Your task to perform on an android device: When is my next meeting? Image 0: 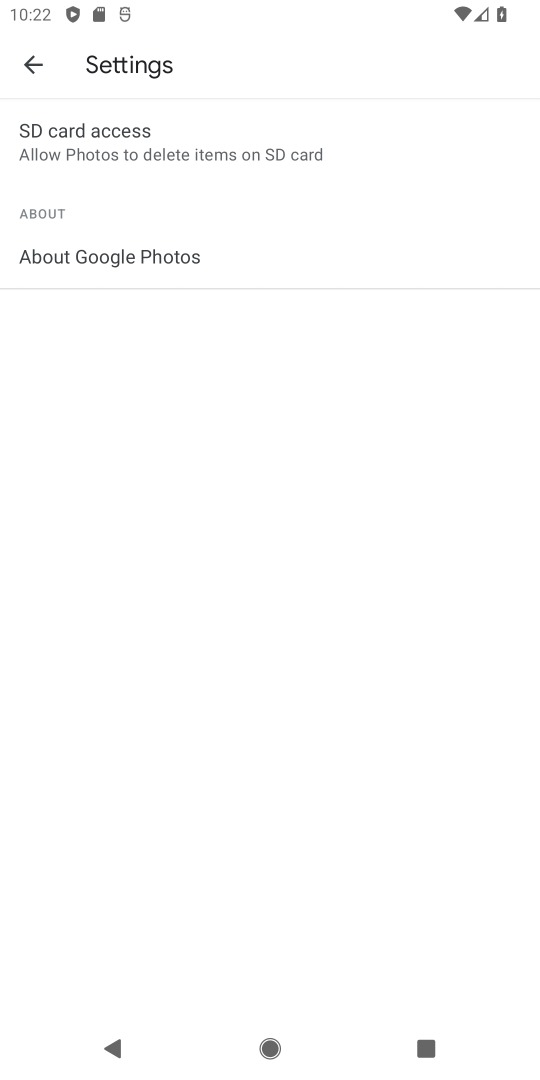
Step 0: press home button
Your task to perform on an android device: When is my next meeting? Image 1: 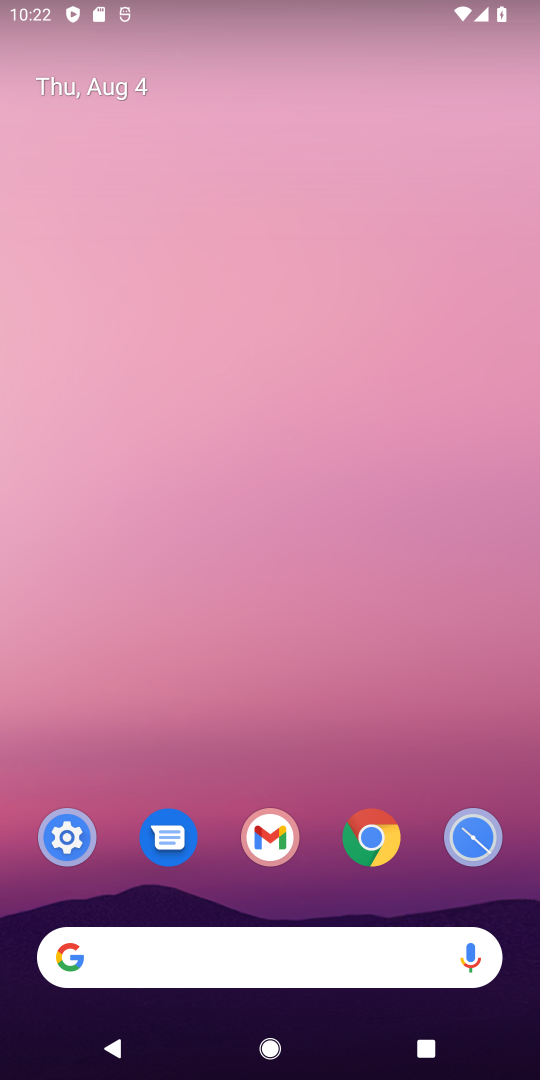
Step 1: drag from (511, 898) to (399, 8)
Your task to perform on an android device: When is my next meeting? Image 2: 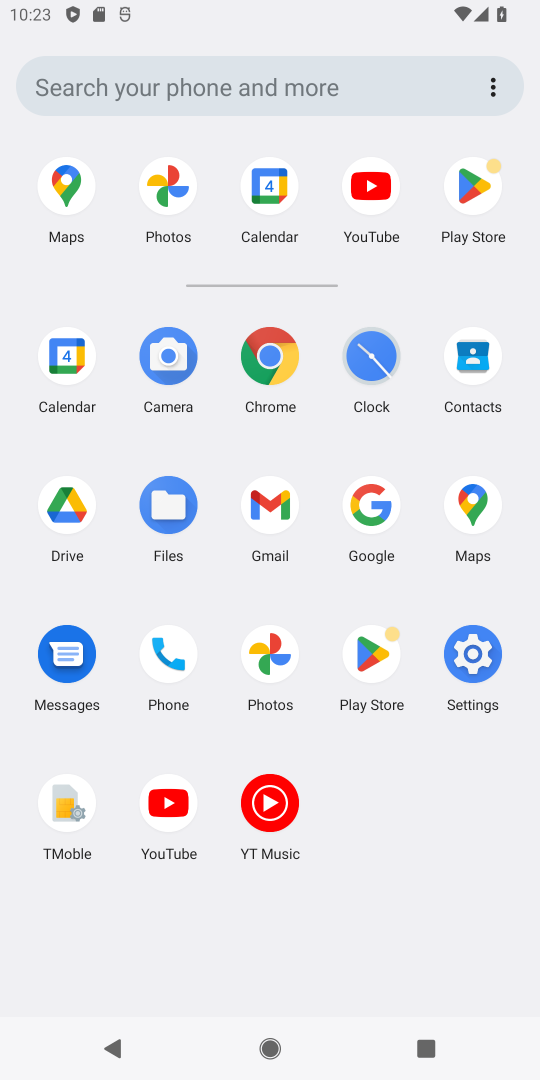
Step 2: click (62, 392)
Your task to perform on an android device: When is my next meeting? Image 3: 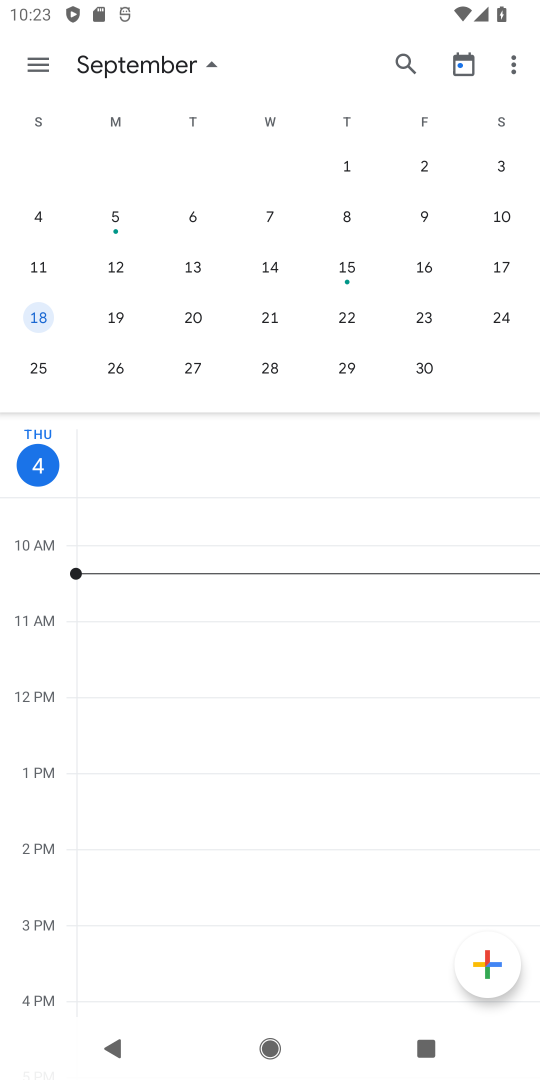
Step 3: task complete